Your task to perform on an android device: change notifications settings Image 0: 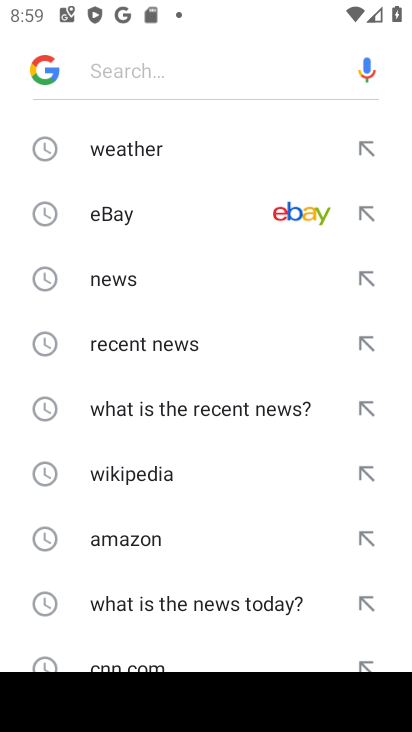
Step 0: press home button
Your task to perform on an android device: change notifications settings Image 1: 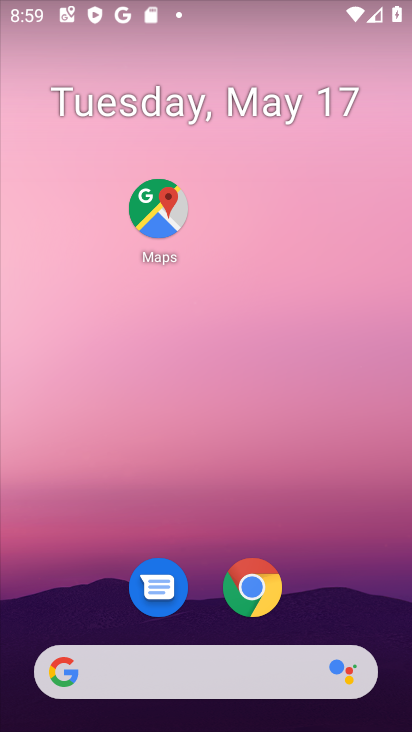
Step 1: drag from (90, 558) to (395, 53)
Your task to perform on an android device: change notifications settings Image 2: 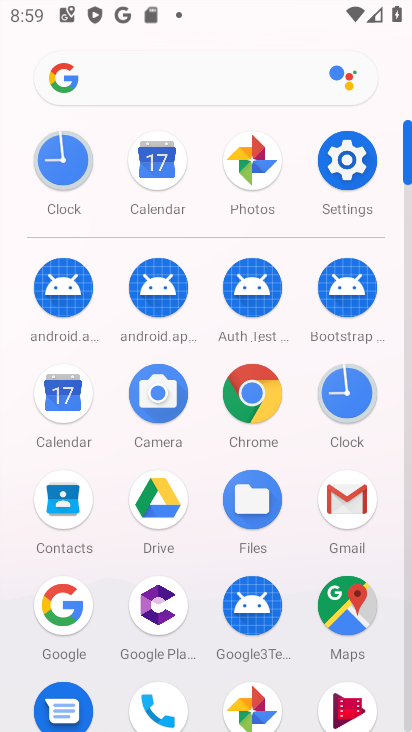
Step 2: click (352, 150)
Your task to perform on an android device: change notifications settings Image 3: 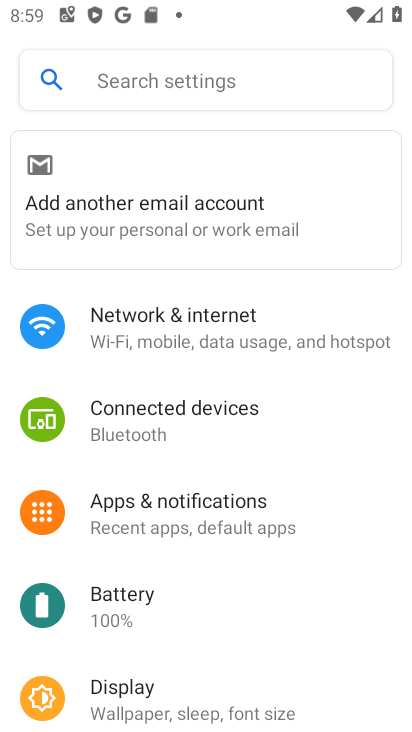
Step 3: click (170, 486)
Your task to perform on an android device: change notifications settings Image 4: 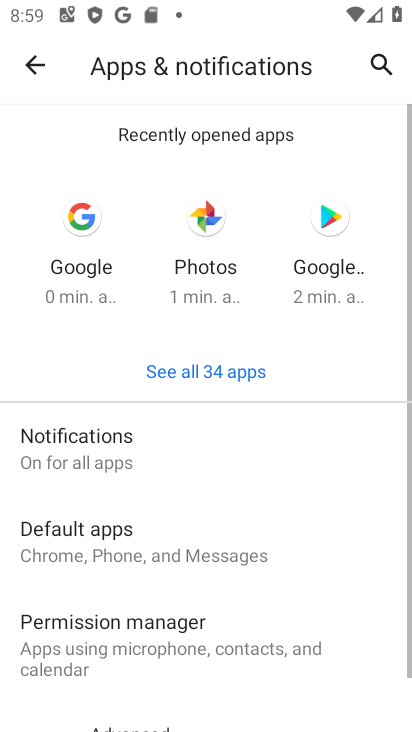
Step 4: click (193, 450)
Your task to perform on an android device: change notifications settings Image 5: 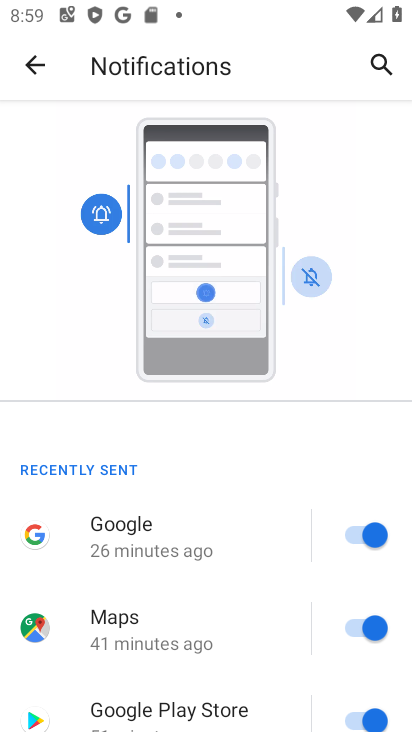
Step 5: click (371, 714)
Your task to perform on an android device: change notifications settings Image 6: 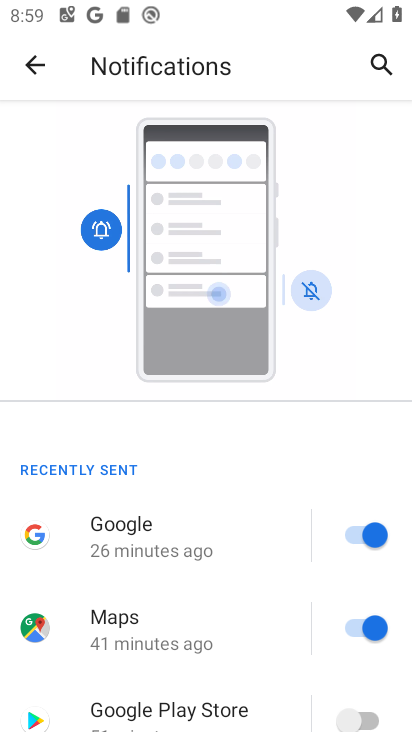
Step 6: task complete